Your task to perform on an android device: set the stopwatch Image 0: 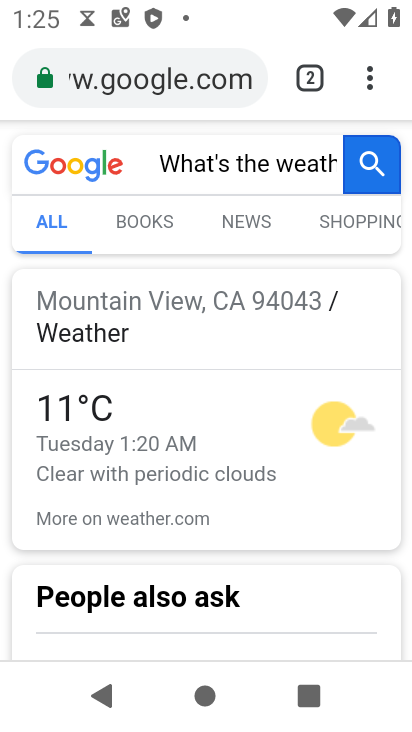
Step 0: press home button
Your task to perform on an android device: set the stopwatch Image 1: 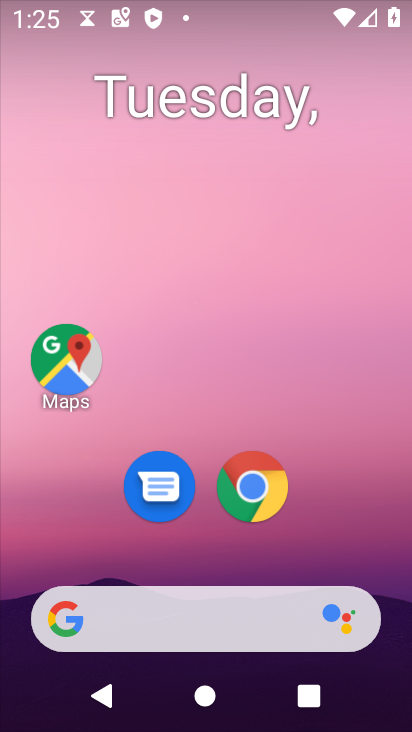
Step 1: drag from (332, 525) to (333, 52)
Your task to perform on an android device: set the stopwatch Image 2: 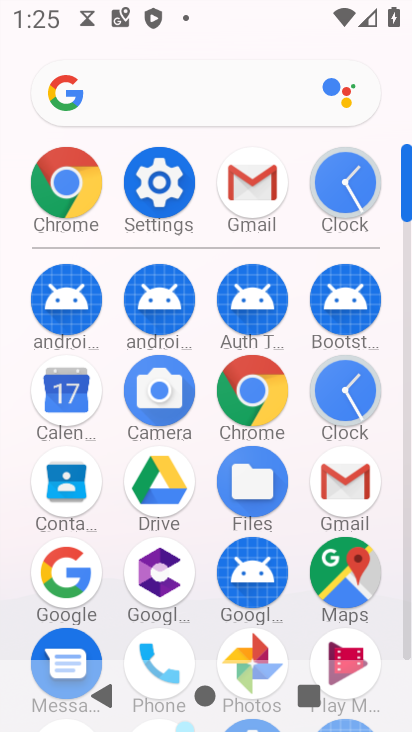
Step 2: click (332, 154)
Your task to perform on an android device: set the stopwatch Image 3: 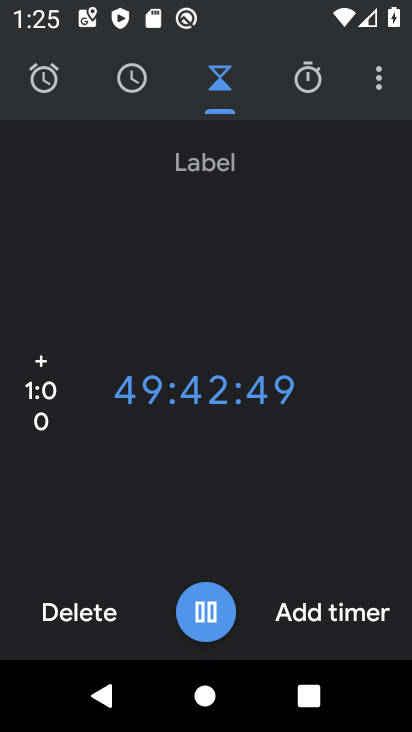
Step 3: click (314, 84)
Your task to perform on an android device: set the stopwatch Image 4: 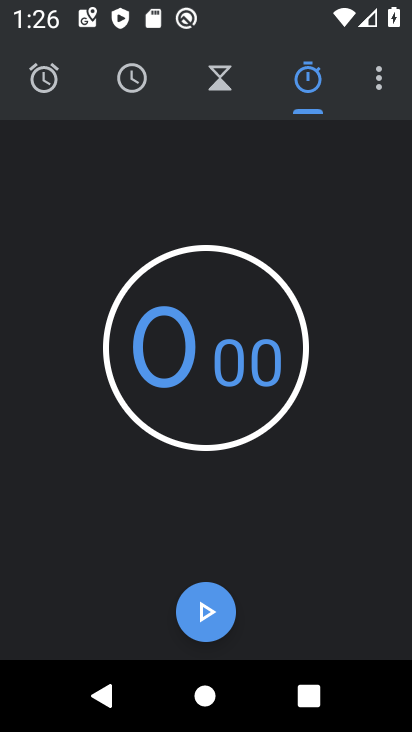
Step 4: click (199, 608)
Your task to perform on an android device: set the stopwatch Image 5: 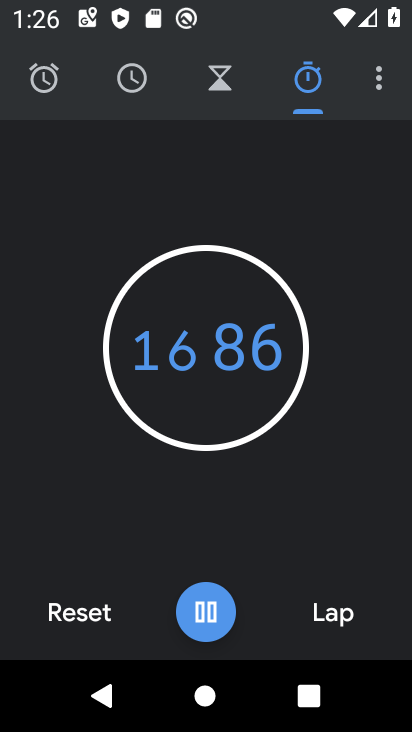
Step 5: task complete